Your task to perform on an android device: Search for Italian restaurants on Maps Image 0: 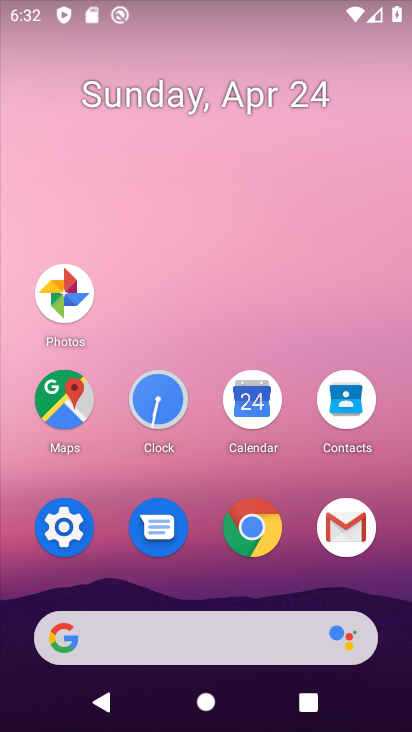
Step 0: click (63, 405)
Your task to perform on an android device: Search for Italian restaurants on Maps Image 1: 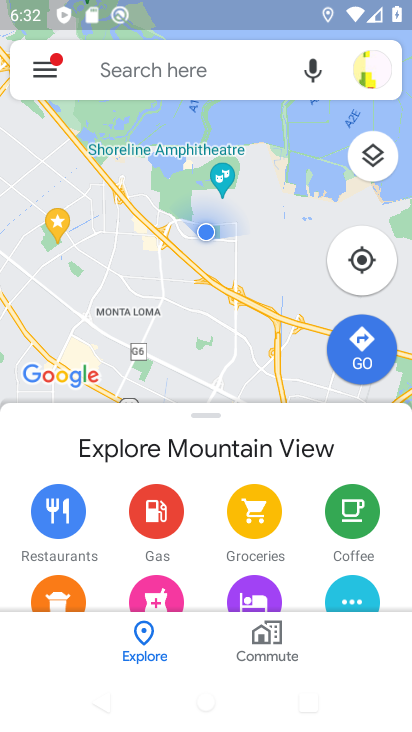
Step 1: click (172, 67)
Your task to perform on an android device: Search for Italian restaurants on Maps Image 2: 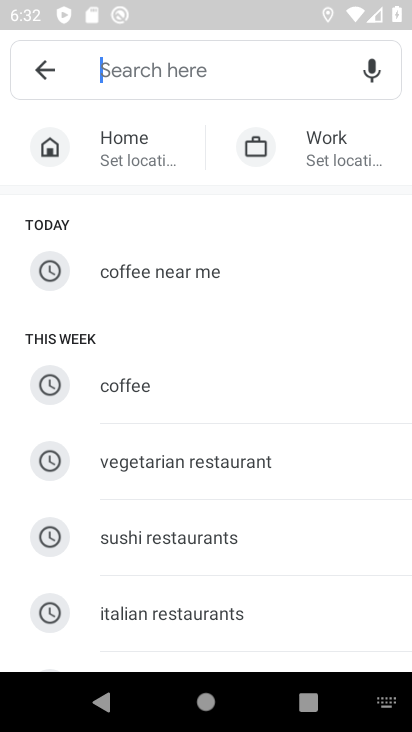
Step 2: click (144, 614)
Your task to perform on an android device: Search for Italian restaurants on Maps Image 3: 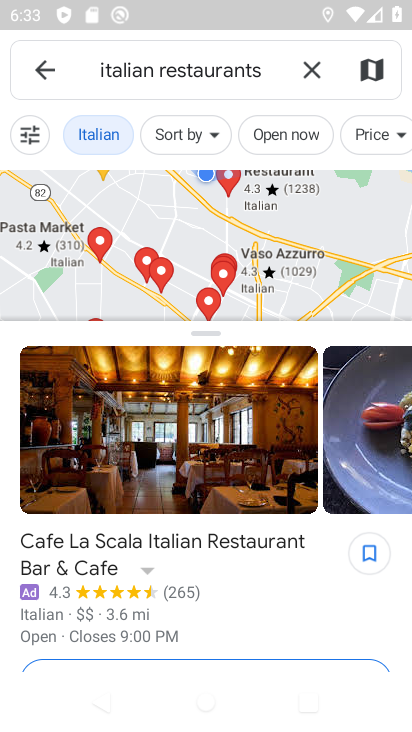
Step 3: task complete